Your task to perform on an android device: set an alarm Image 0: 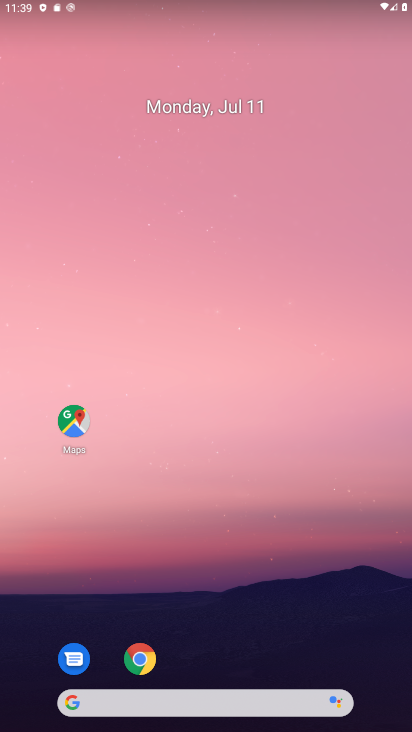
Step 0: drag from (230, 618) to (286, 408)
Your task to perform on an android device: set an alarm Image 1: 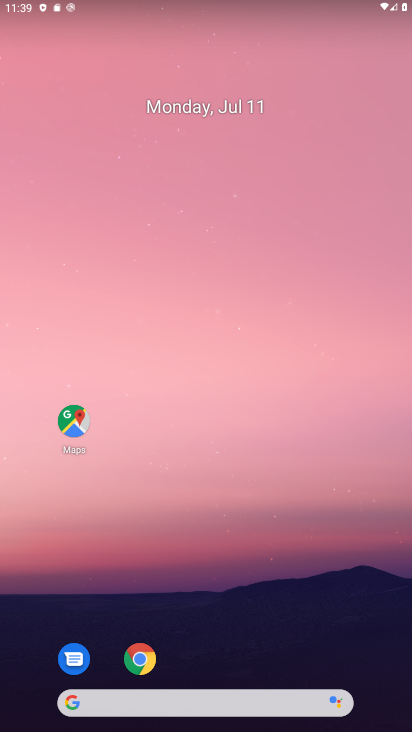
Step 1: drag from (183, 644) to (358, 298)
Your task to perform on an android device: set an alarm Image 2: 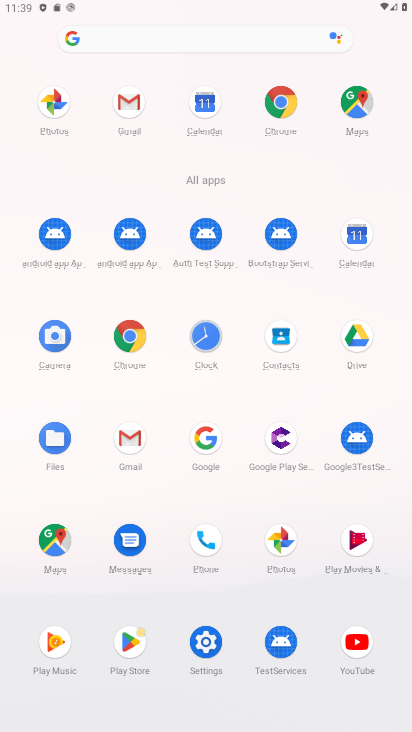
Step 2: click (205, 340)
Your task to perform on an android device: set an alarm Image 3: 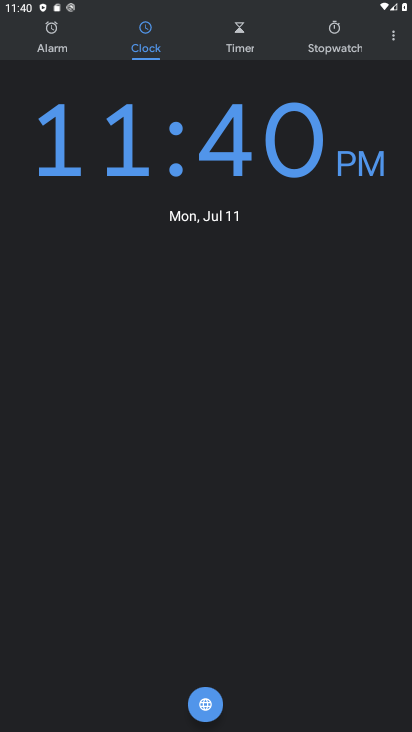
Step 3: press home button
Your task to perform on an android device: set an alarm Image 4: 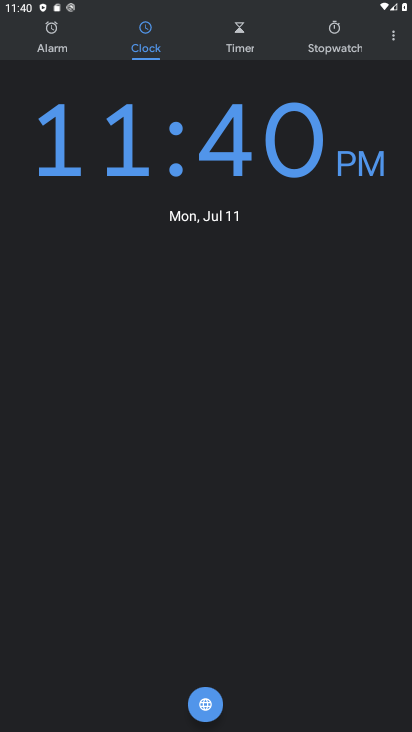
Step 4: press home button
Your task to perform on an android device: set an alarm Image 5: 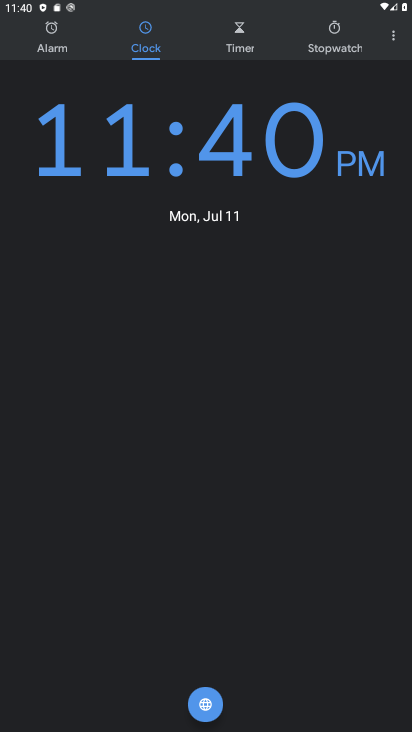
Step 5: click (319, 100)
Your task to perform on an android device: set an alarm Image 6: 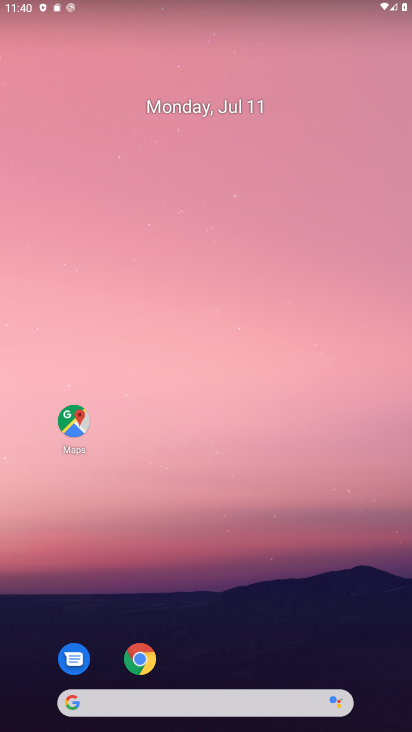
Step 6: drag from (149, 661) to (218, 227)
Your task to perform on an android device: set an alarm Image 7: 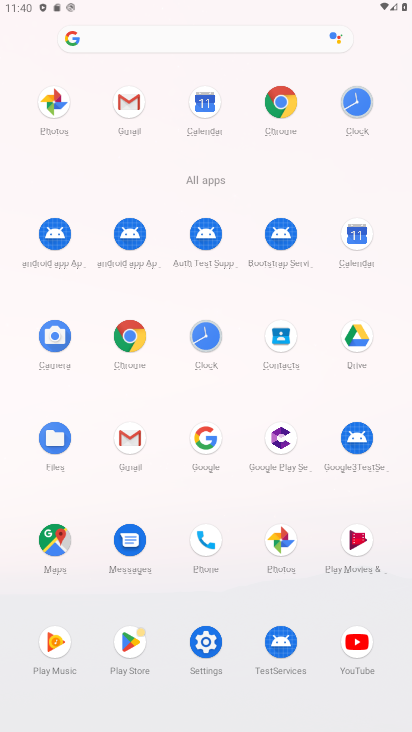
Step 7: click (209, 336)
Your task to perform on an android device: set an alarm Image 8: 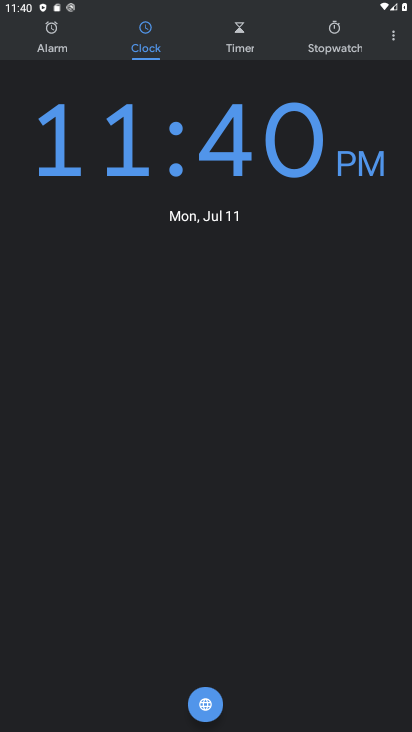
Step 8: click (62, 56)
Your task to perform on an android device: set an alarm Image 9: 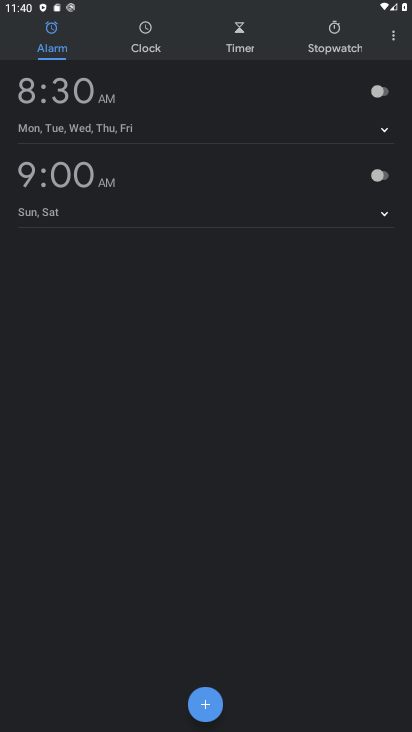
Step 9: drag from (240, 579) to (256, 234)
Your task to perform on an android device: set an alarm Image 10: 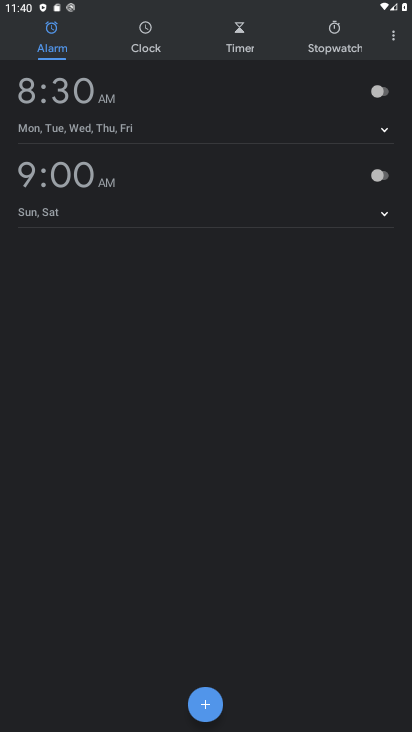
Step 10: click (387, 87)
Your task to perform on an android device: set an alarm Image 11: 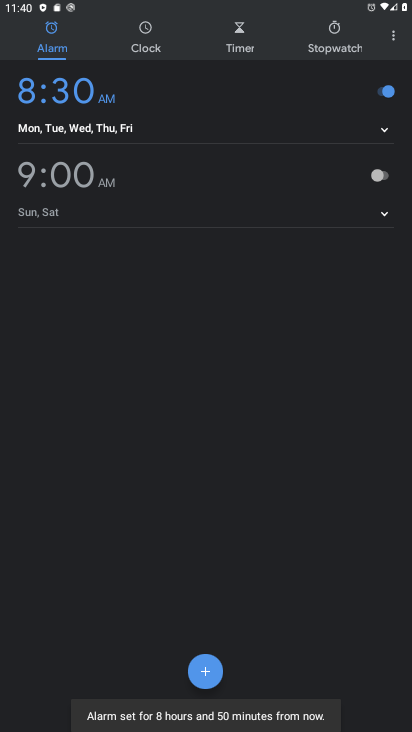
Step 11: task complete